Your task to perform on an android device: Search for alienware area 51 on ebay.com, select the first entry, and add it to the cart. Image 0: 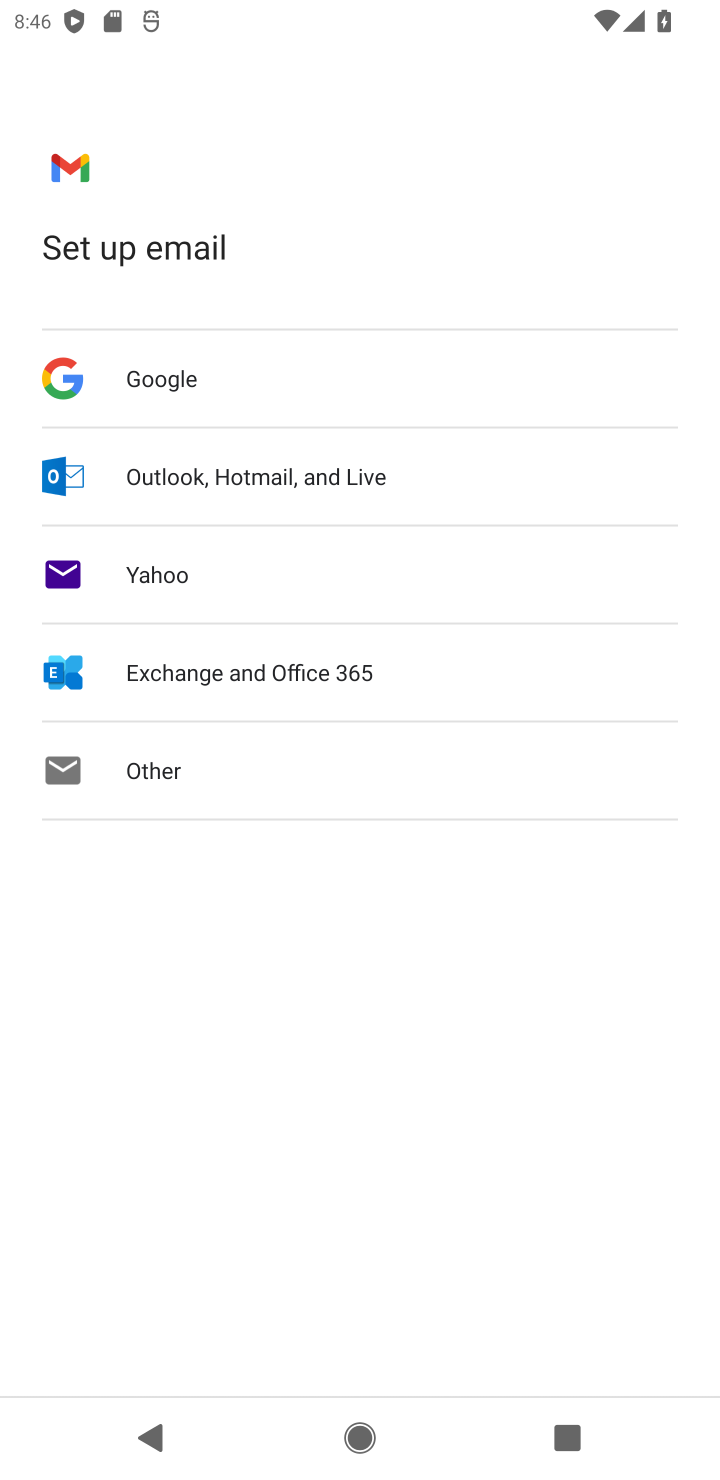
Step 0: press home button
Your task to perform on an android device: Search for alienware area 51 on ebay.com, select the first entry, and add it to the cart. Image 1: 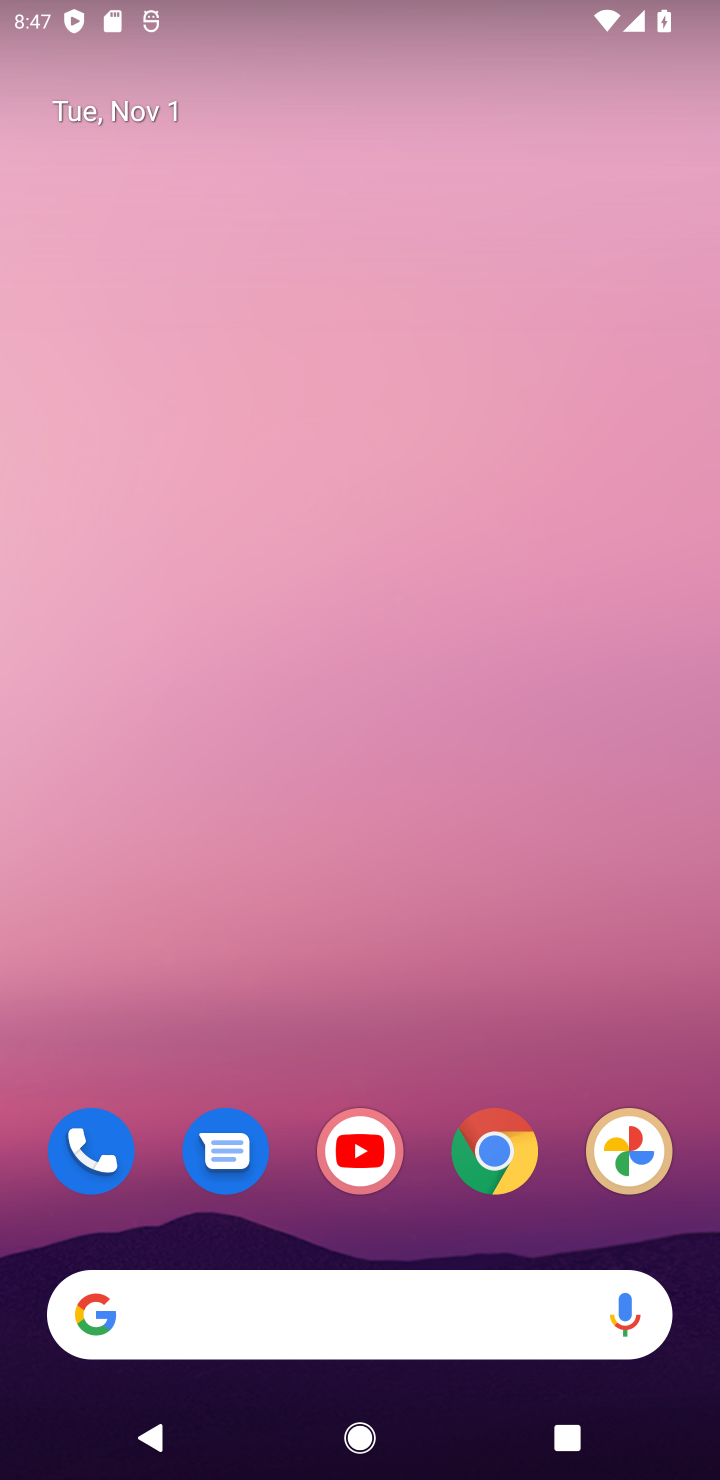
Step 1: click (500, 1133)
Your task to perform on an android device: Search for alienware area 51 on ebay.com, select the first entry, and add it to the cart. Image 2: 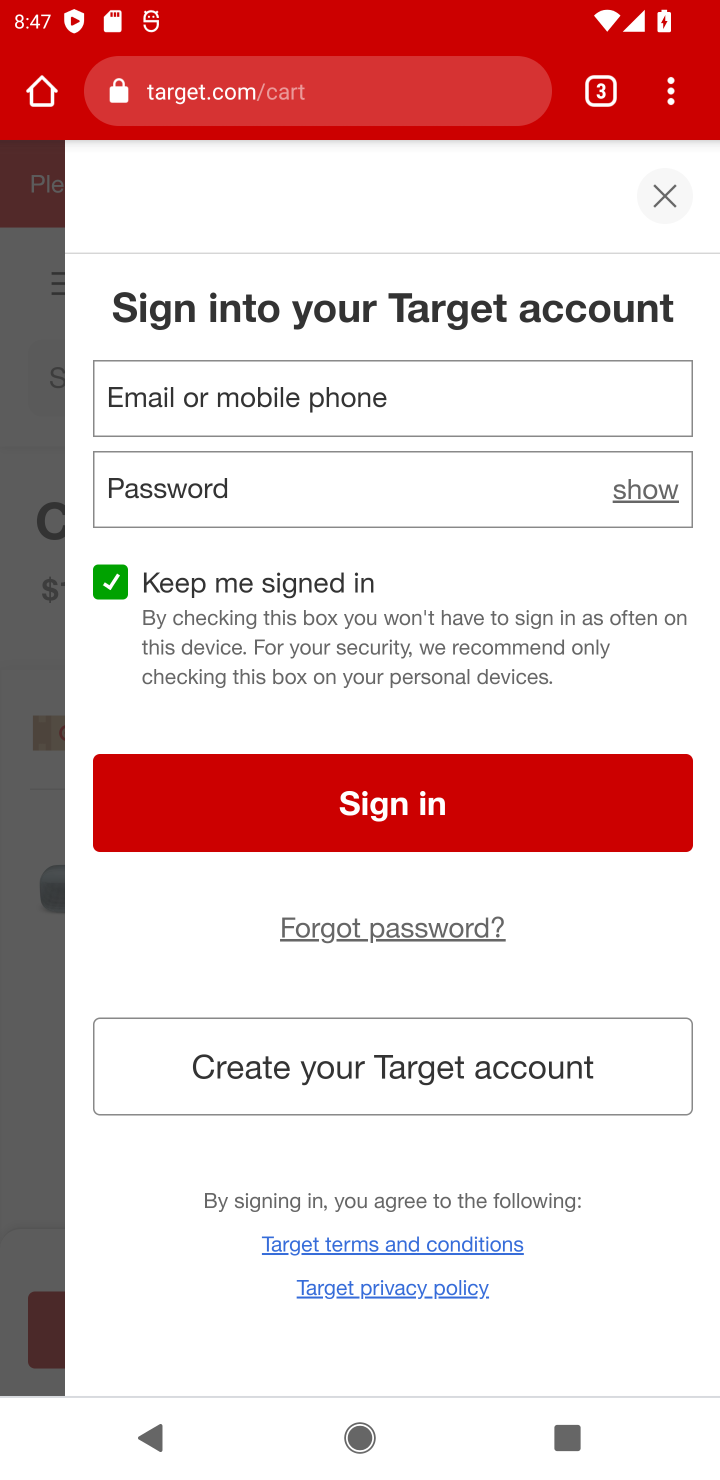
Step 2: click (601, 99)
Your task to perform on an android device: Search for alienware area 51 on ebay.com, select the first entry, and add it to the cart. Image 3: 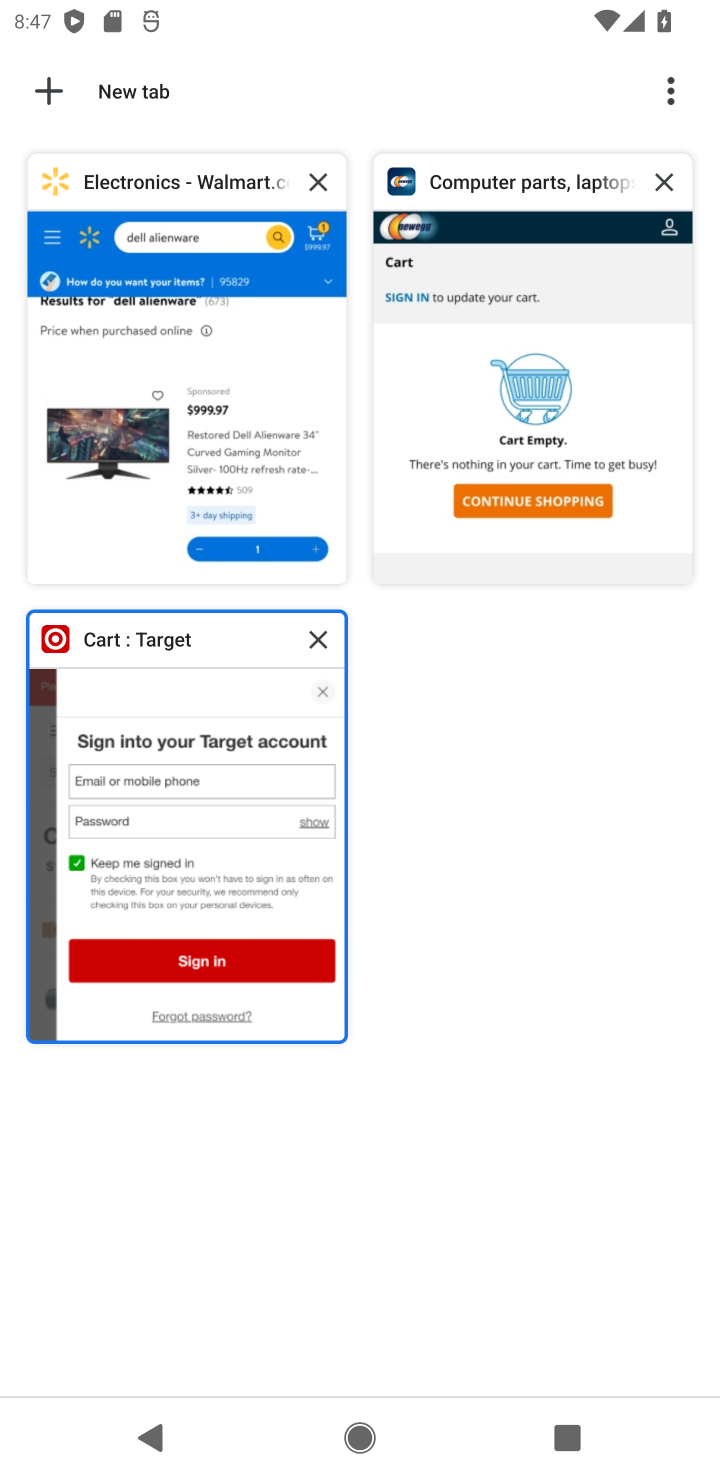
Step 3: click (47, 83)
Your task to perform on an android device: Search for alienware area 51 on ebay.com, select the first entry, and add it to the cart. Image 4: 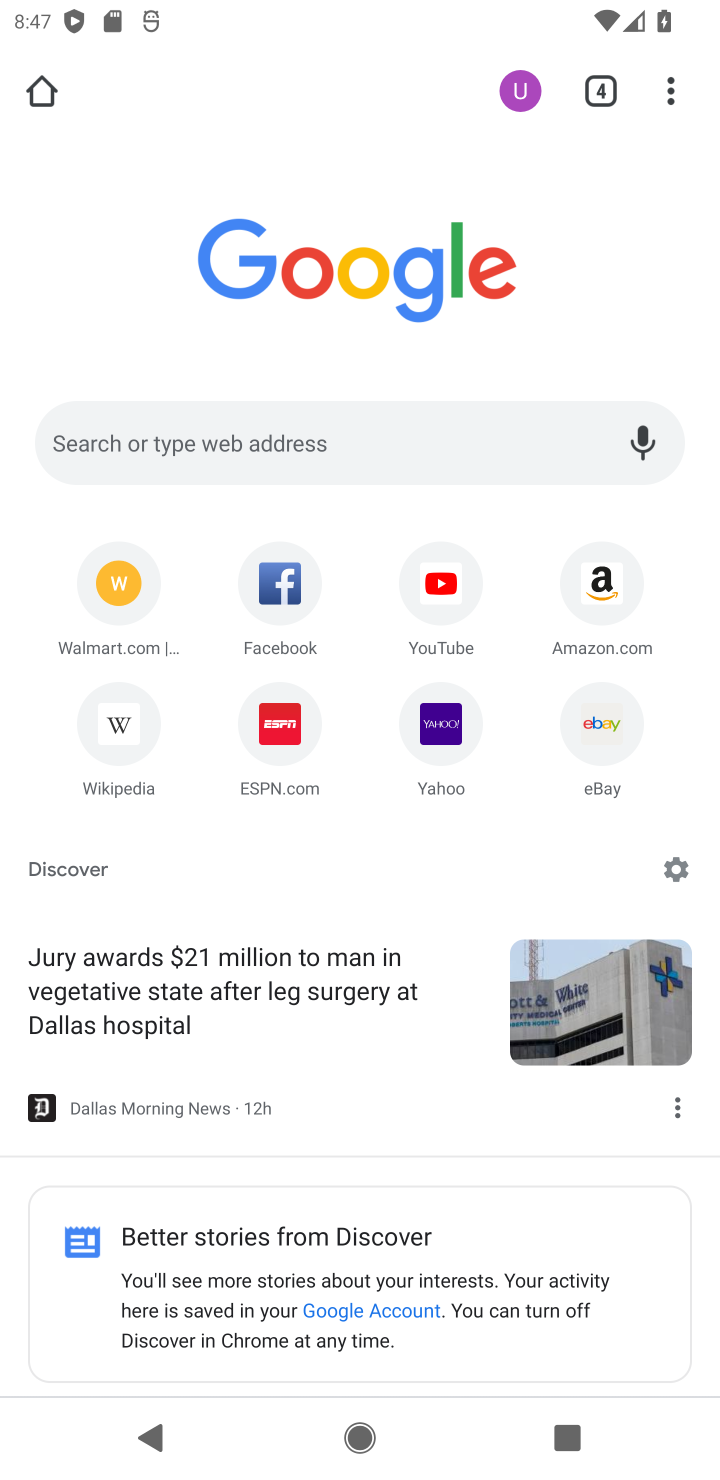
Step 4: click (299, 441)
Your task to perform on an android device: Search for alienware area 51 on ebay.com, select the first entry, and add it to the cart. Image 5: 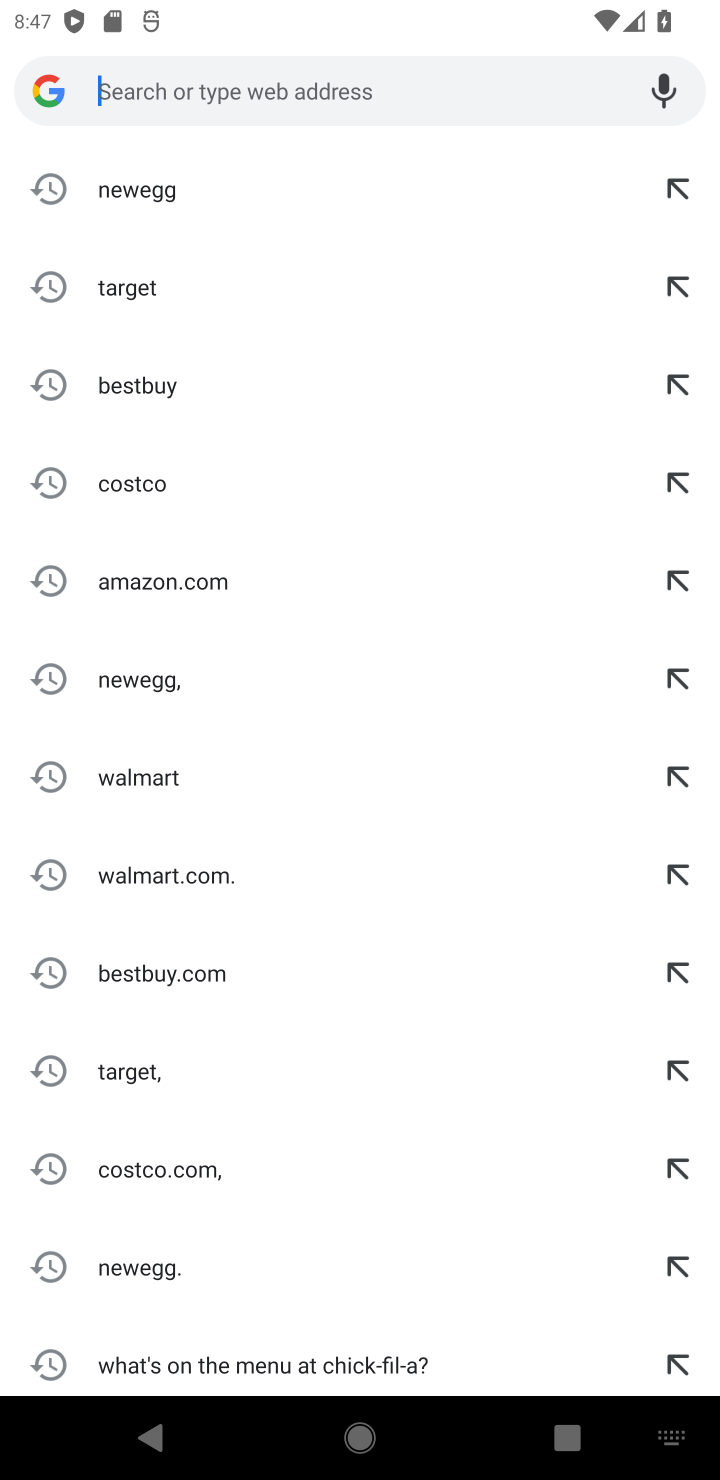
Step 5: press enter
Your task to perform on an android device: Search for alienware area 51 on ebay.com, select the first entry, and add it to the cart. Image 6: 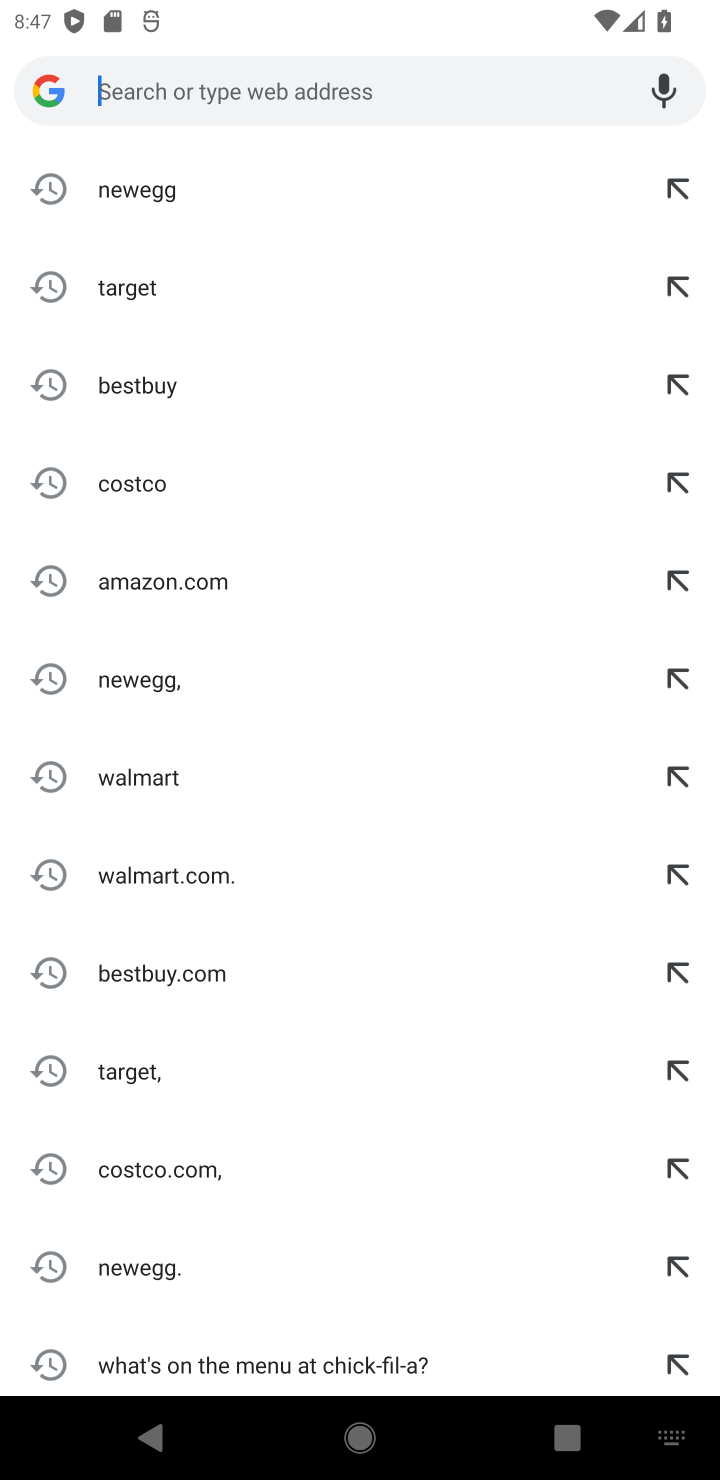
Step 6: type "ebay"
Your task to perform on an android device: Search for alienware area 51 on ebay.com, select the first entry, and add it to the cart. Image 7: 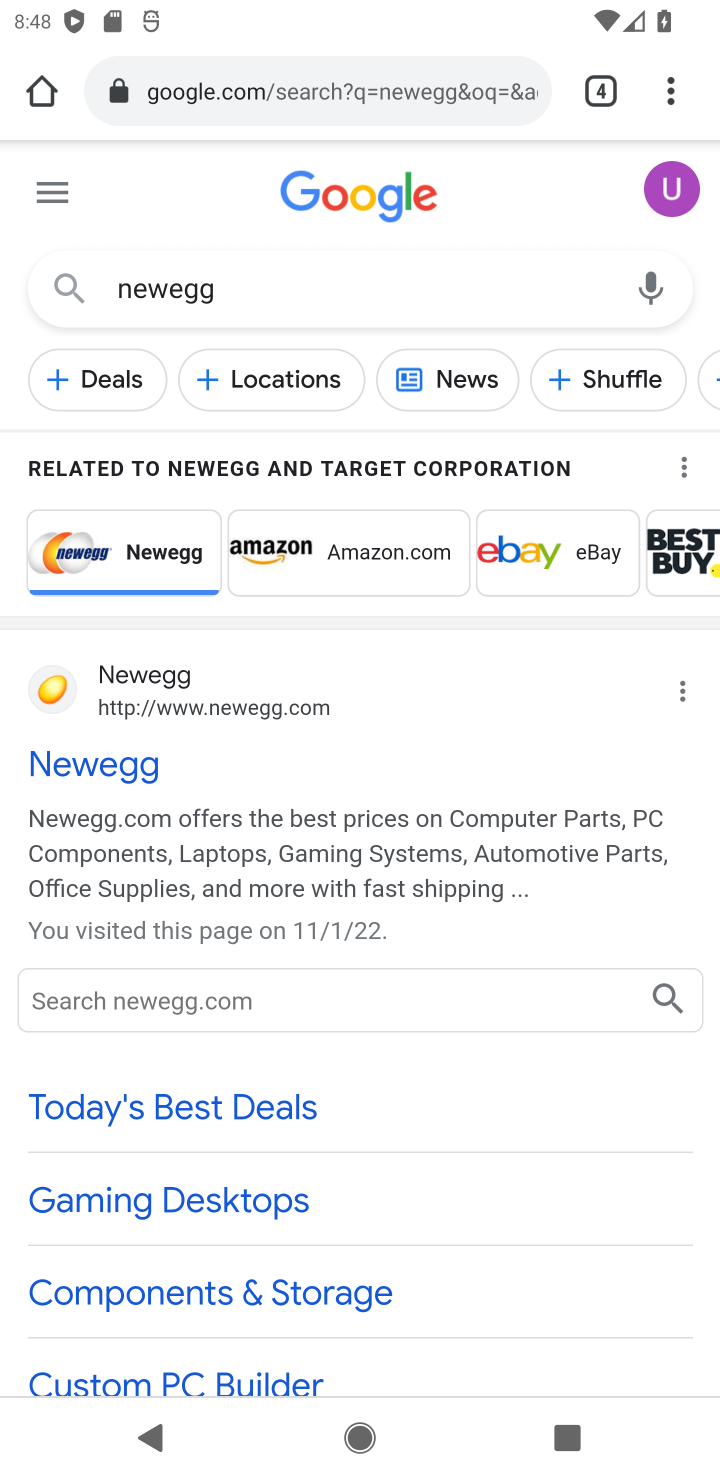
Step 7: click (199, 286)
Your task to perform on an android device: Search for alienware area 51 on ebay.com, select the first entry, and add it to the cart. Image 8: 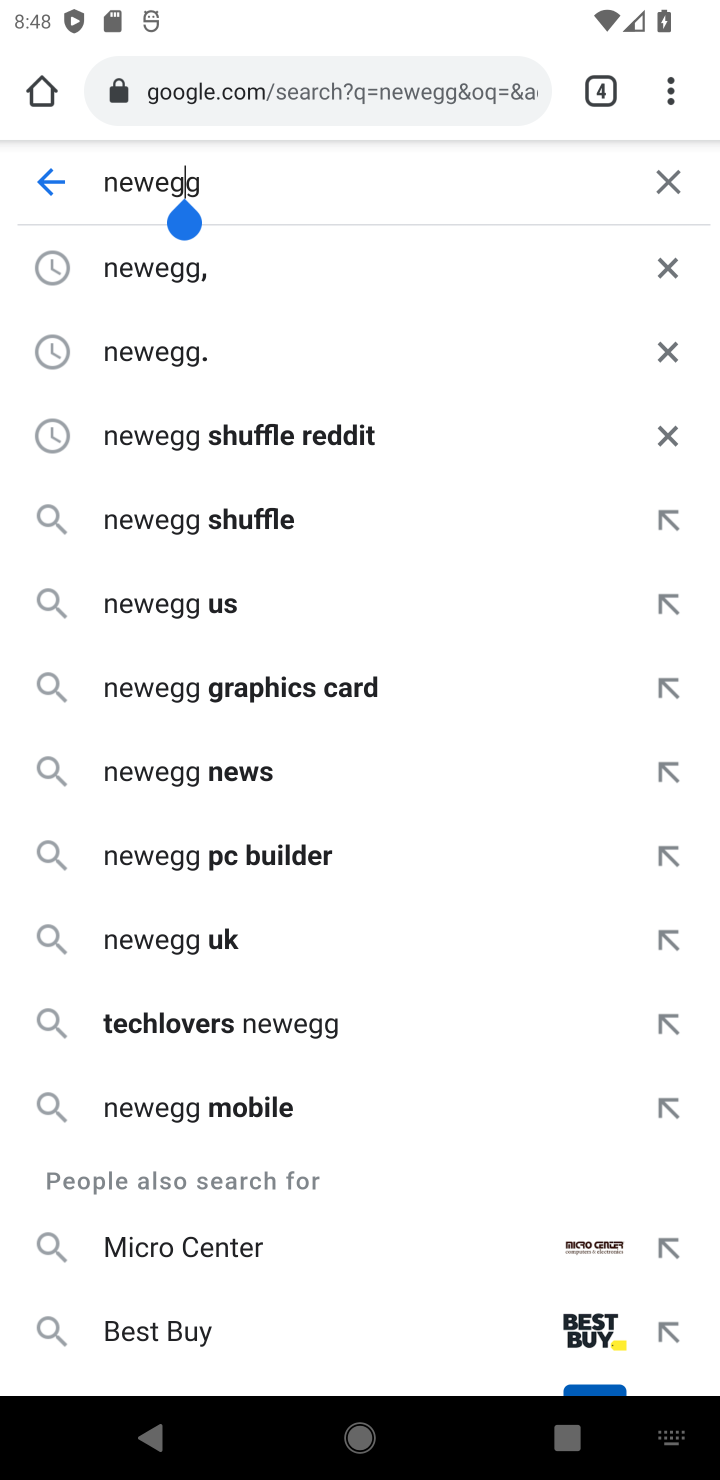
Step 8: click (670, 183)
Your task to perform on an android device: Search for alienware area 51 on ebay.com, select the first entry, and add it to the cart. Image 9: 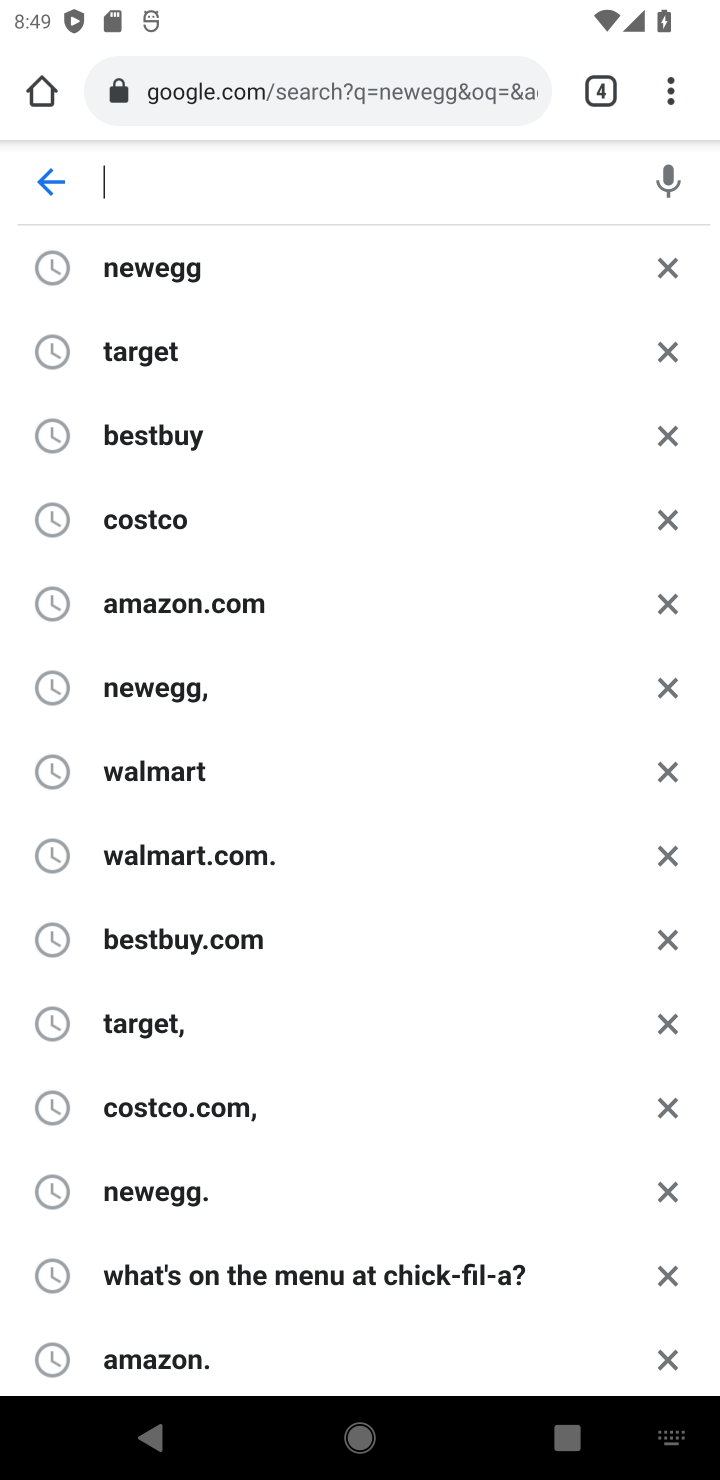
Step 9: press enter
Your task to perform on an android device: Search for alienware area 51 on ebay.com, select the first entry, and add it to the cart. Image 10: 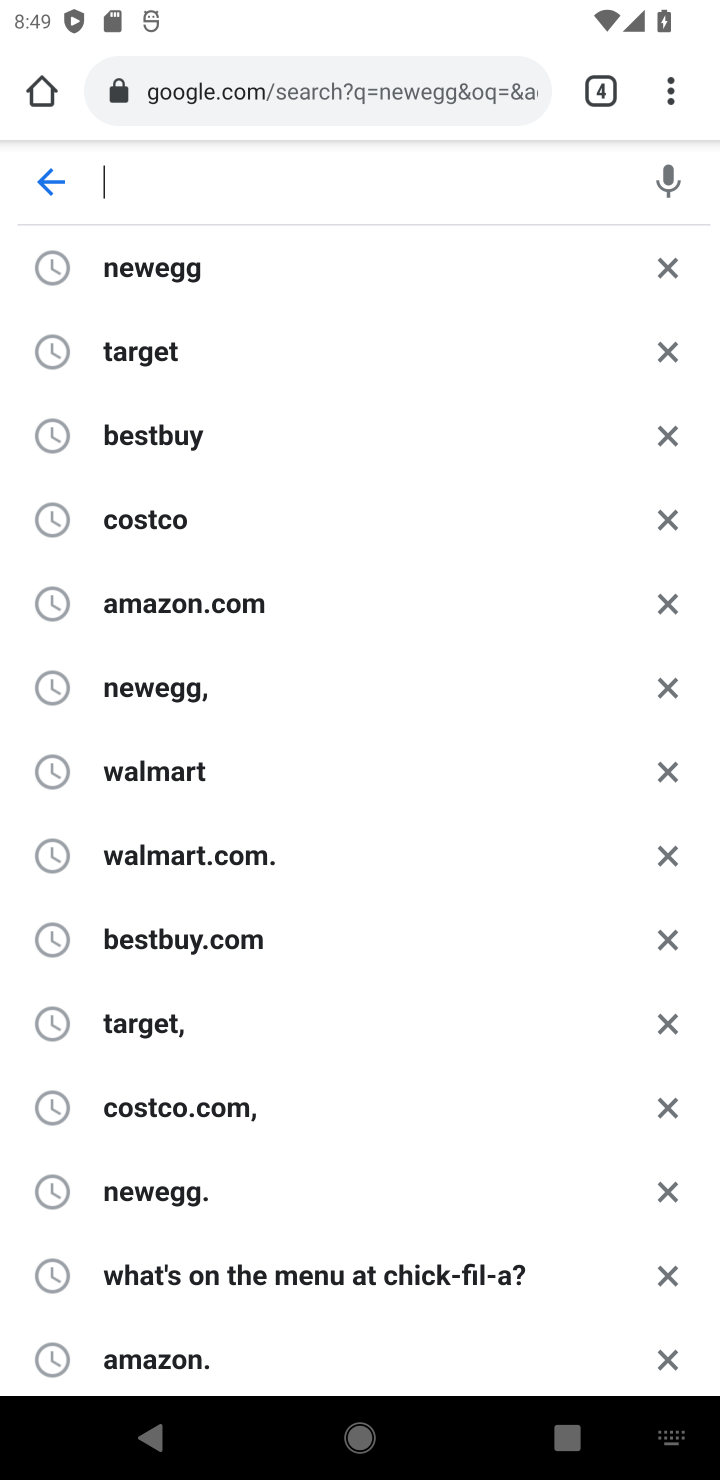
Step 10: type "ebay"
Your task to perform on an android device: Search for alienware area 51 on ebay.com, select the first entry, and add it to the cart. Image 11: 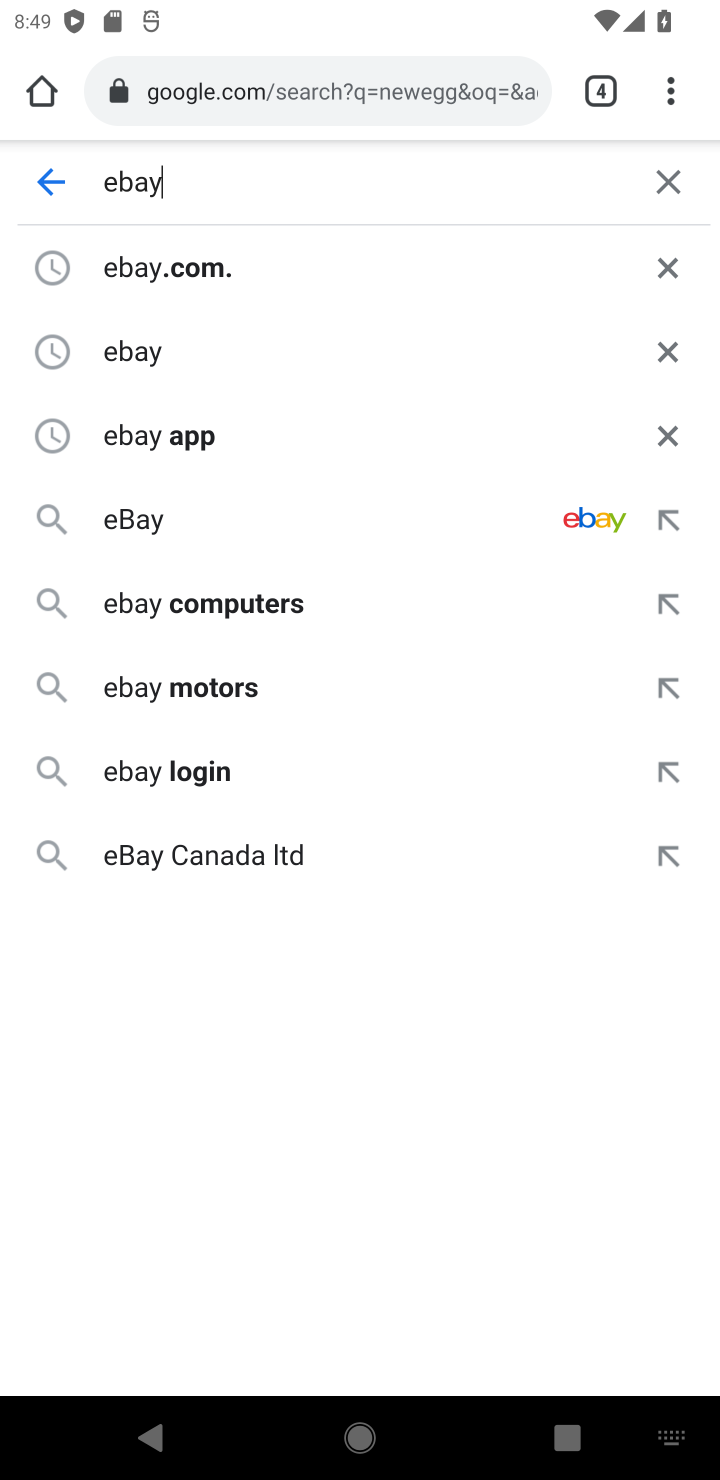
Step 11: click (128, 335)
Your task to perform on an android device: Search for alienware area 51 on ebay.com, select the first entry, and add it to the cart. Image 12: 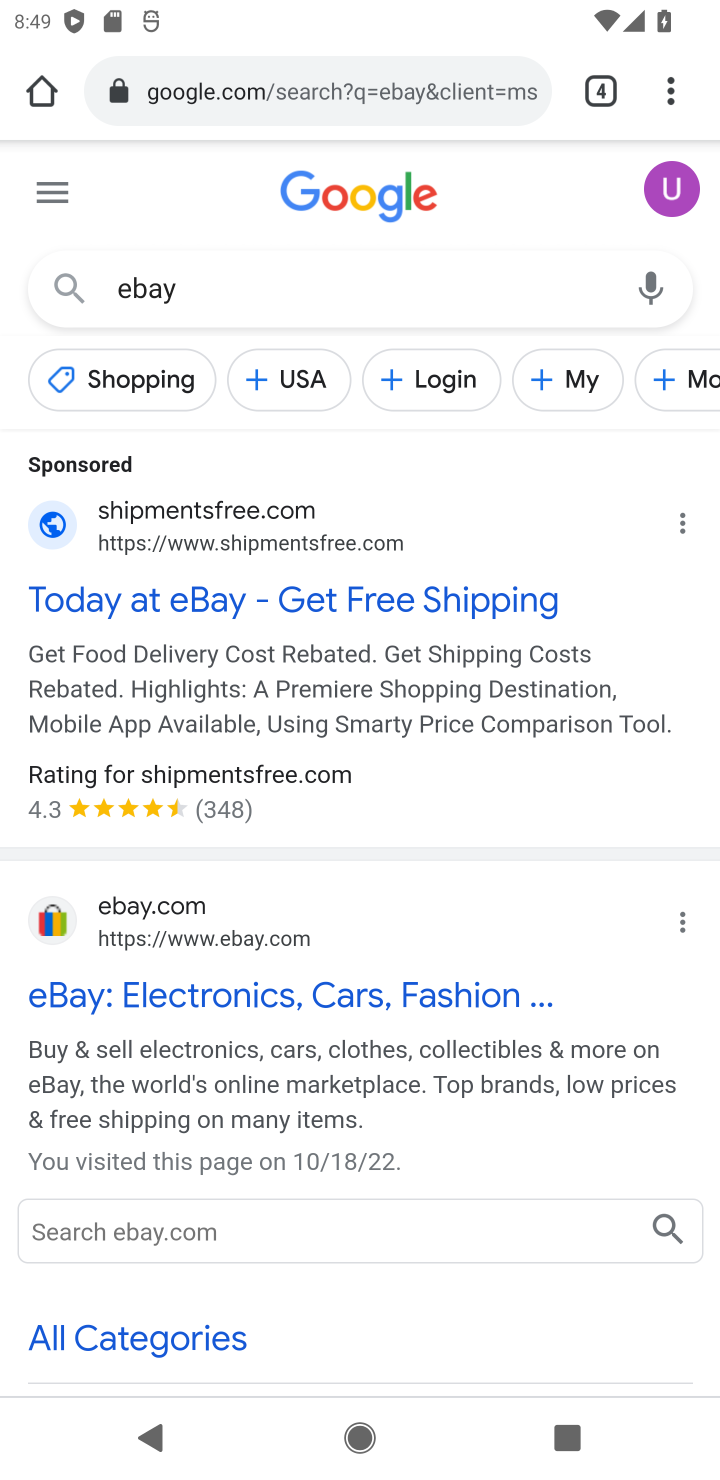
Step 12: click (130, 984)
Your task to perform on an android device: Search for alienware area 51 on ebay.com, select the first entry, and add it to the cart. Image 13: 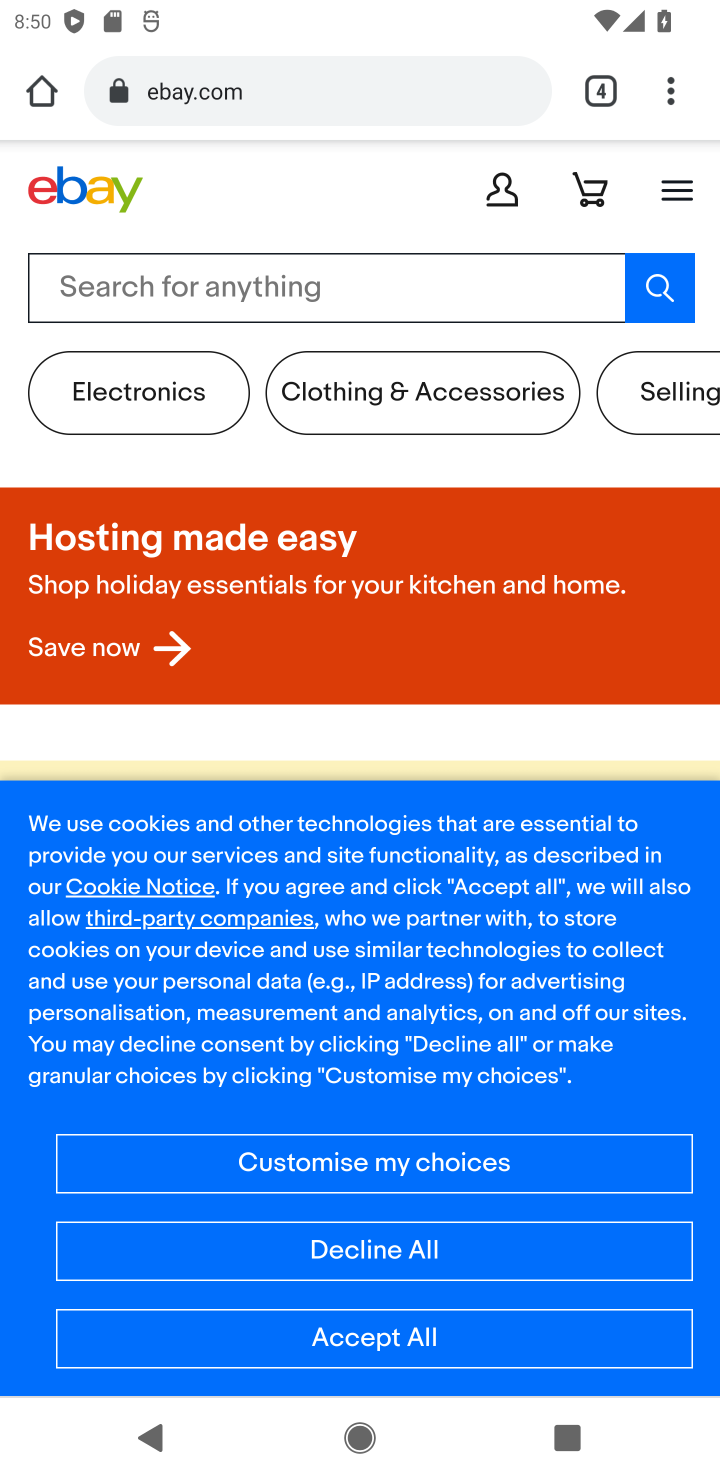
Step 13: click (244, 290)
Your task to perform on an android device: Search for alienware area 51 on ebay.com, select the first entry, and add it to the cart. Image 14: 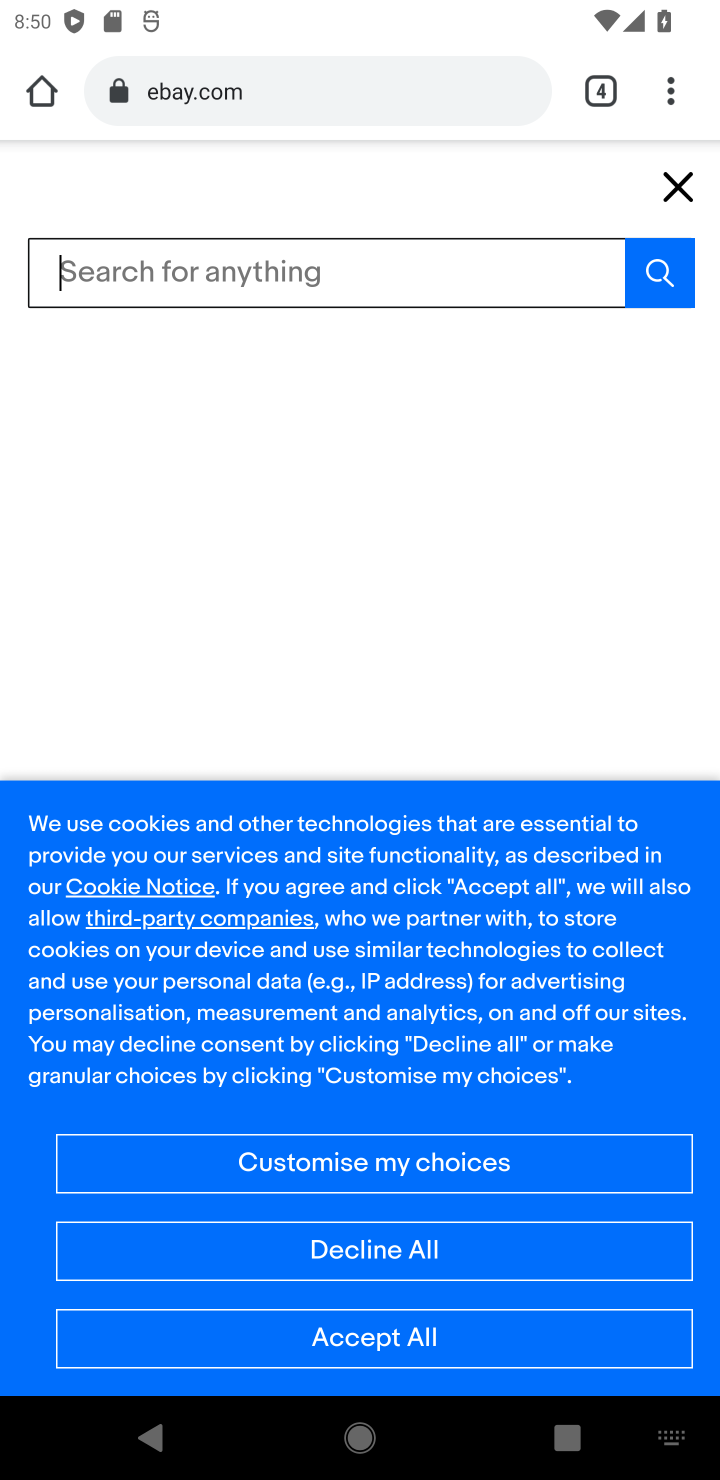
Step 14: type "alienware area 51 "
Your task to perform on an android device: Search for alienware area 51 on ebay.com, select the first entry, and add it to the cart. Image 15: 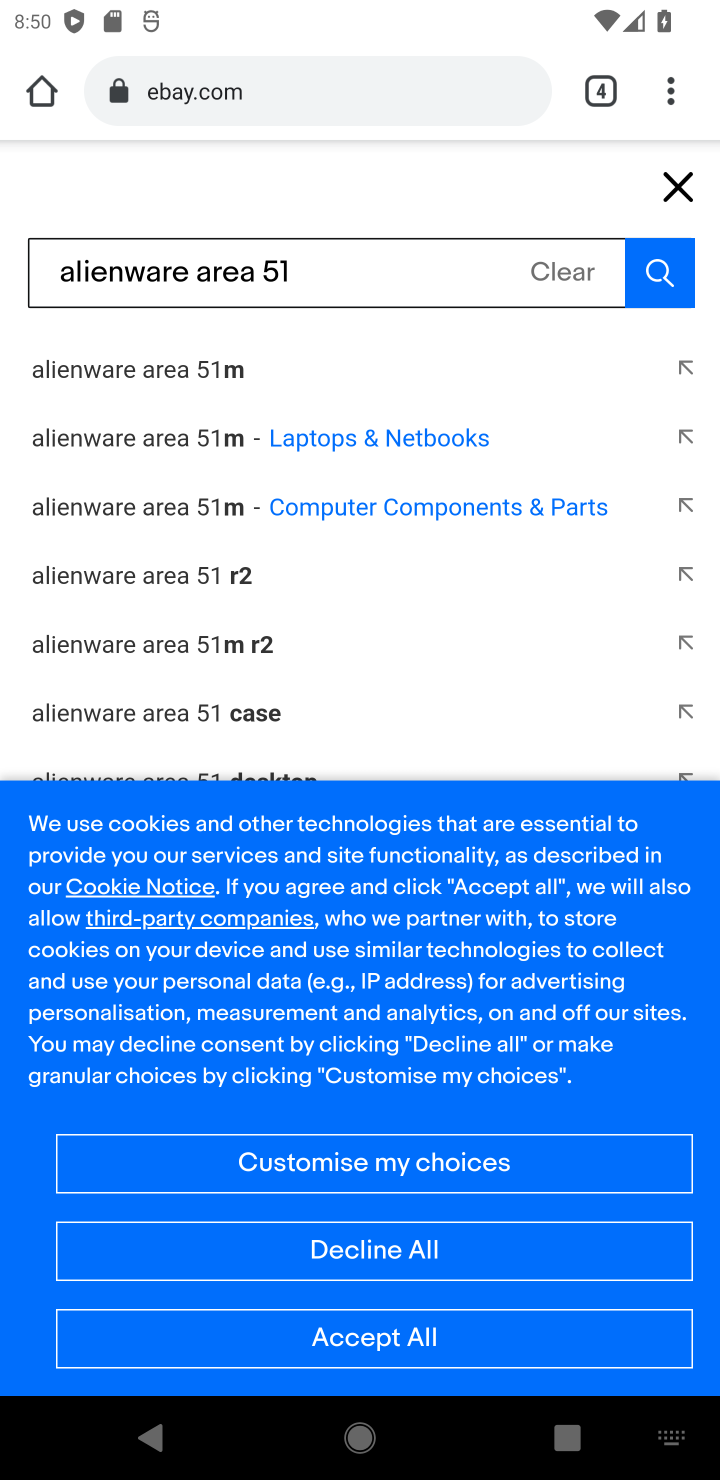
Step 15: click (149, 434)
Your task to perform on an android device: Search for alienware area 51 on ebay.com, select the first entry, and add it to the cart. Image 16: 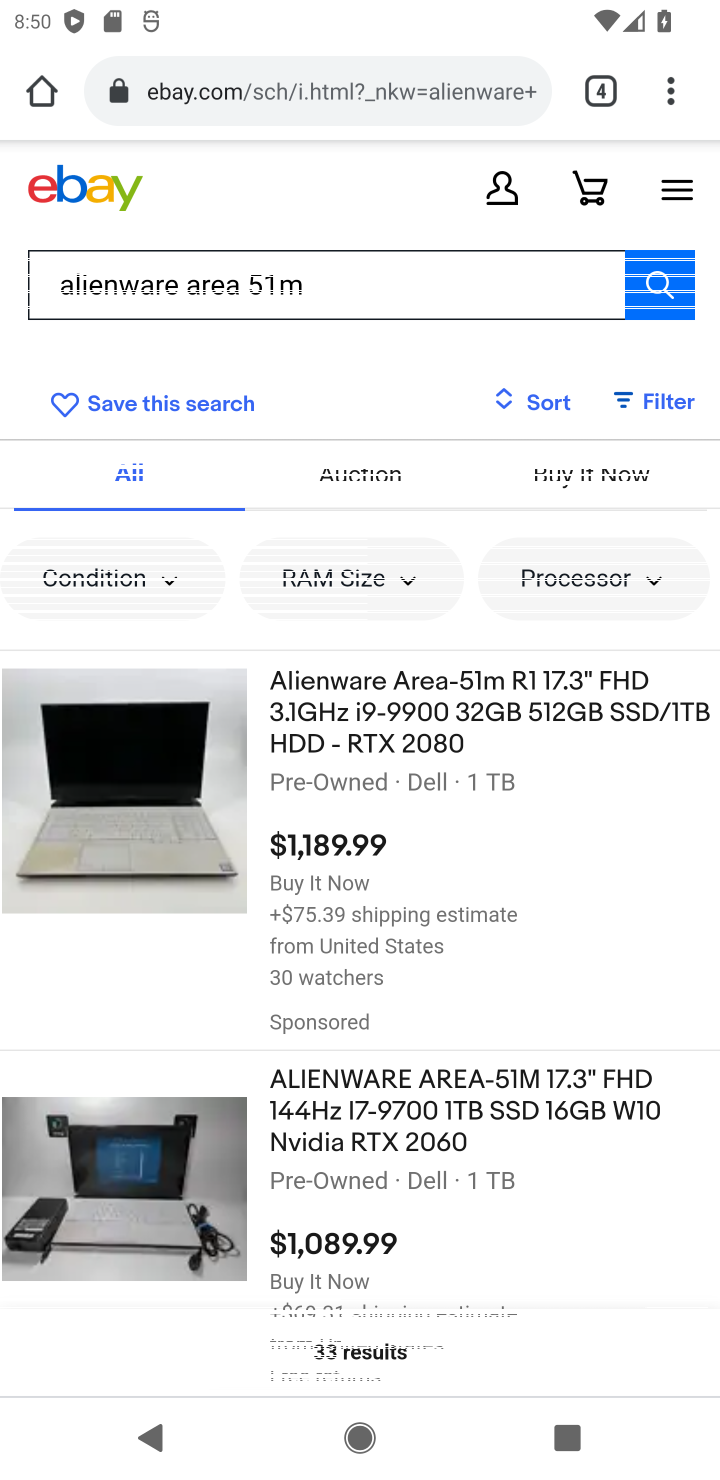
Step 16: click (485, 724)
Your task to perform on an android device: Search for alienware area 51 on ebay.com, select the first entry, and add it to the cart. Image 17: 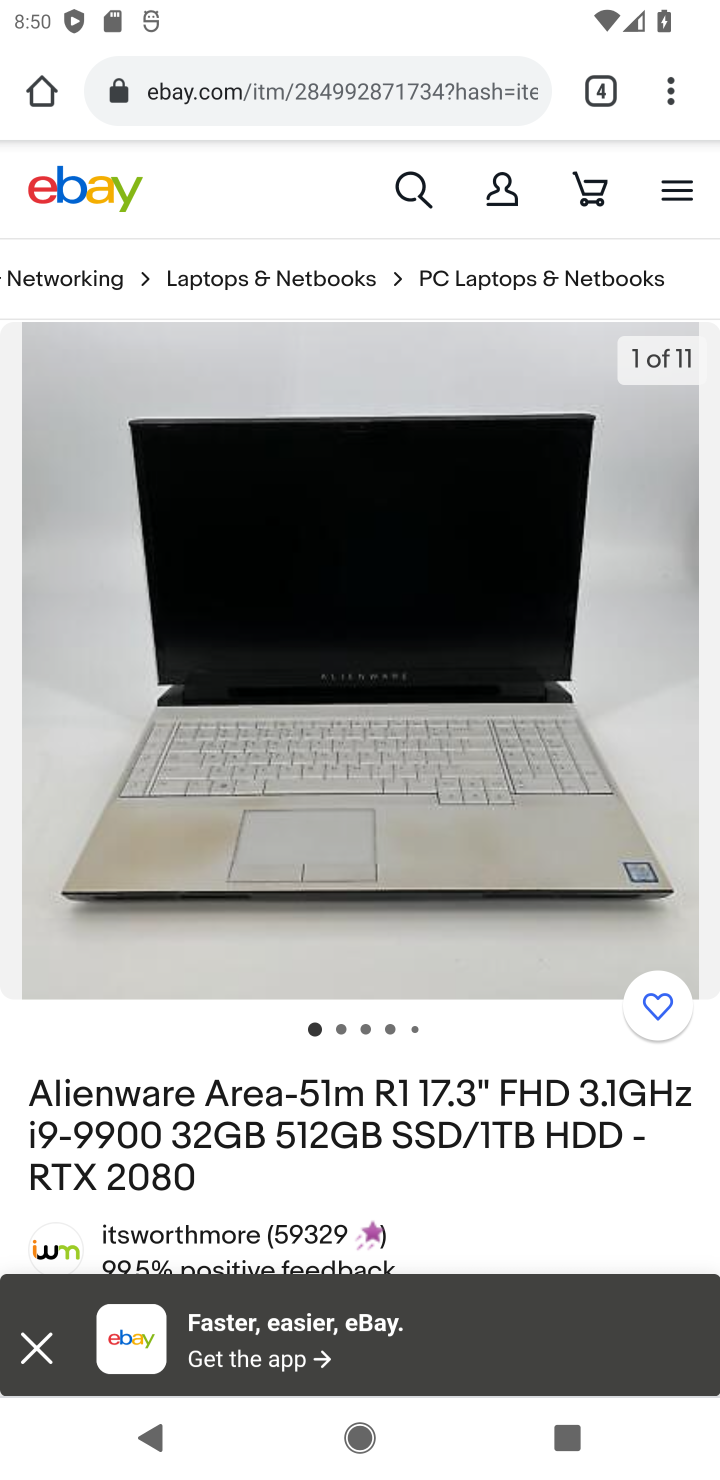
Step 17: click (40, 1357)
Your task to perform on an android device: Search for alienware area 51 on ebay.com, select the first entry, and add it to the cart. Image 18: 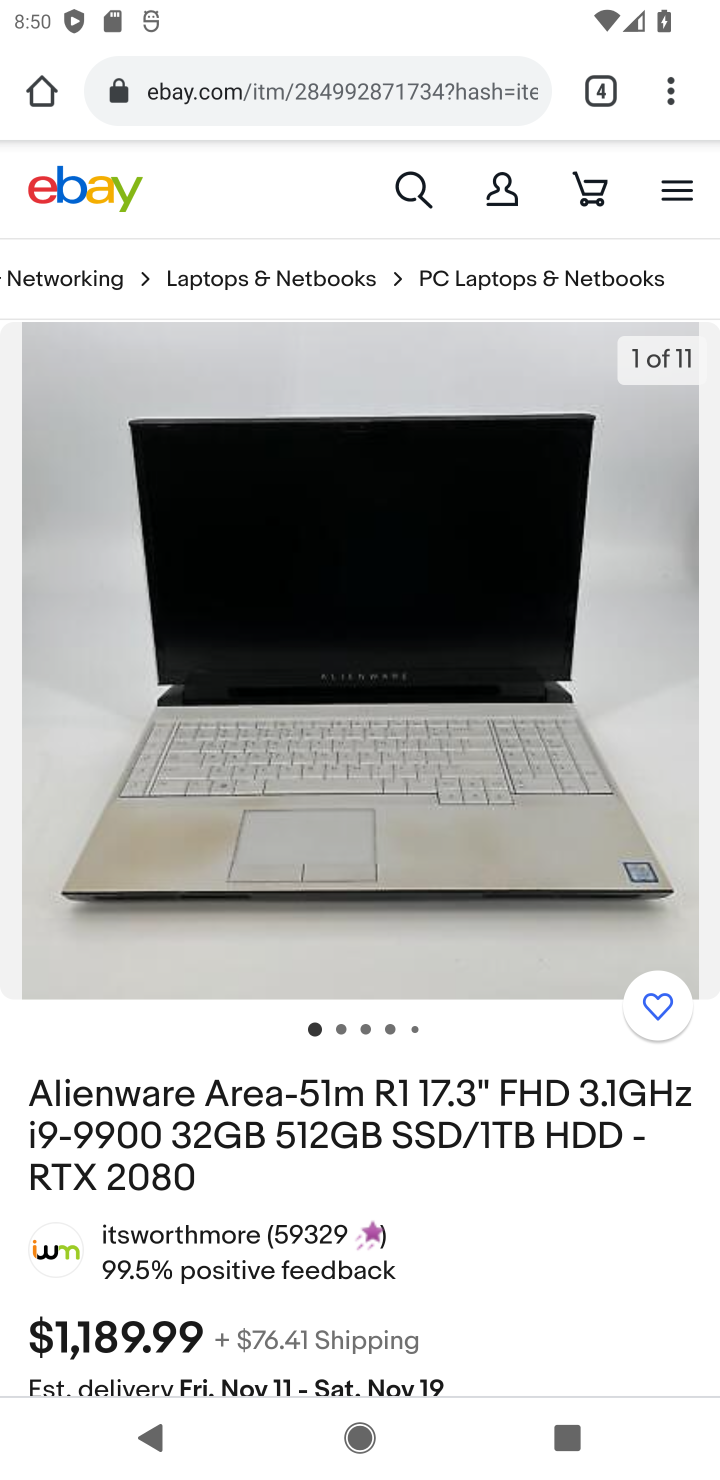
Step 18: drag from (513, 1207) to (545, 365)
Your task to perform on an android device: Search for alienware area 51 on ebay.com, select the first entry, and add it to the cart. Image 19: 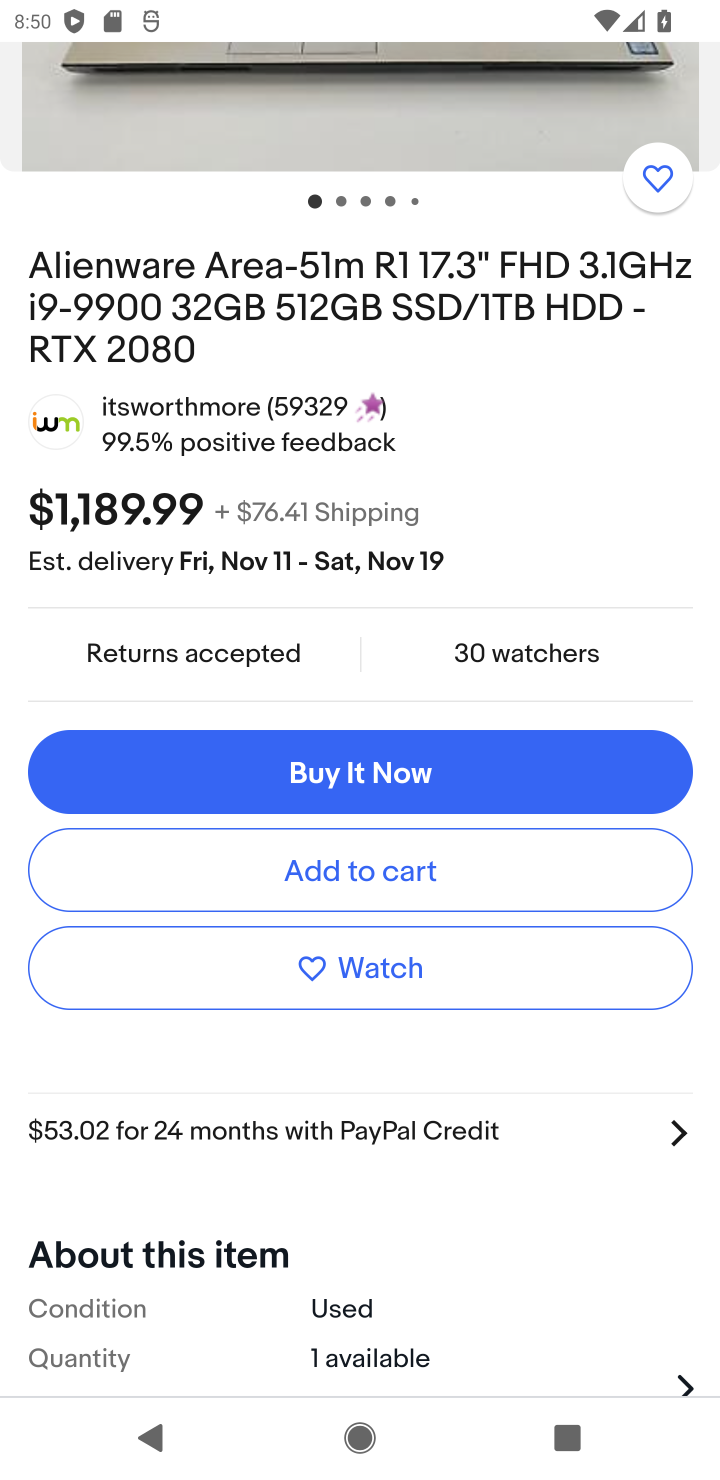
Step 19: click (272, 857)
Your task to perform on an android device: Search for alienware area 51 on ebay.com, select the first entry, and add it to the cart. Image 20: 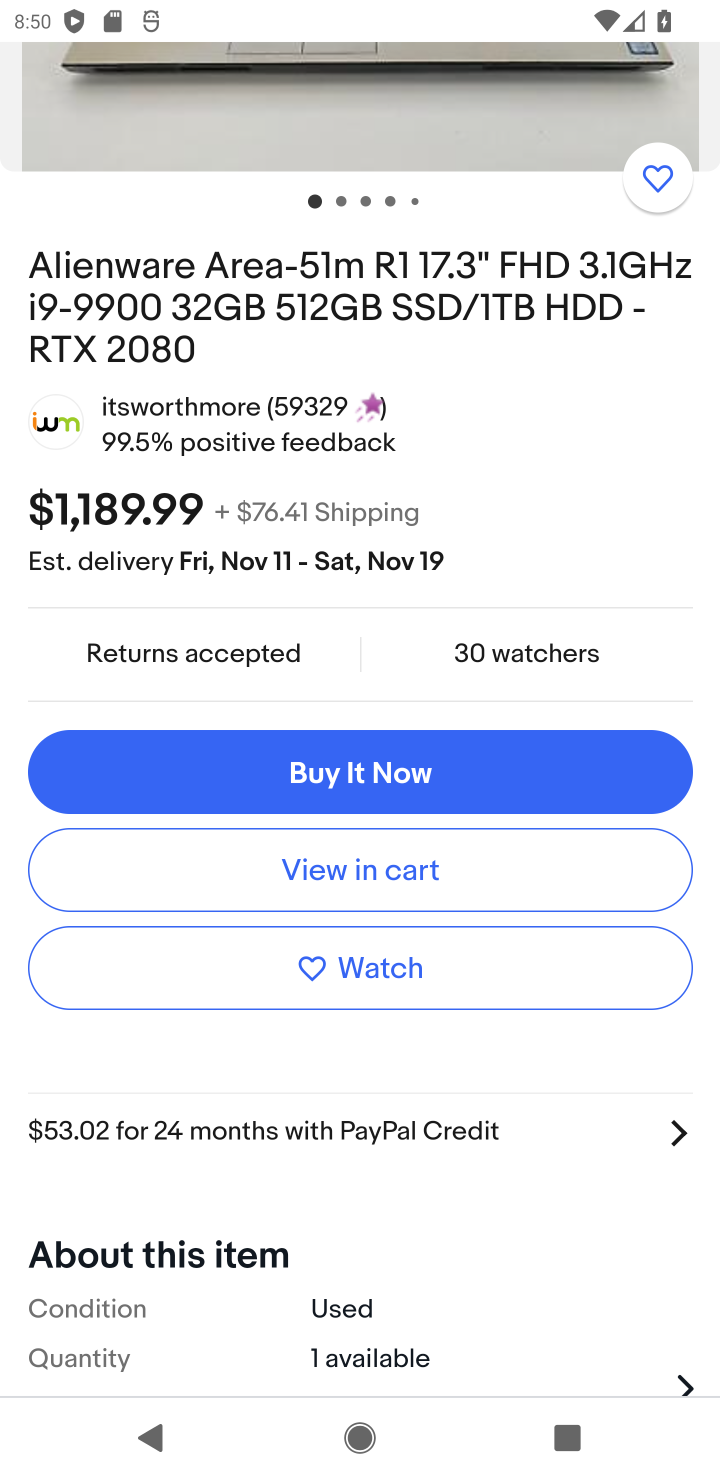
Step 20: task complete